Your task to perform on an android device: Open ESPN.com Image 0: 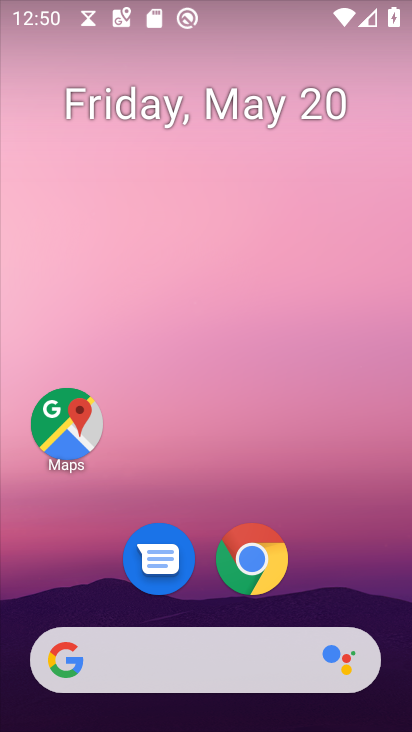
Step 0: drag from (338, 433) to (343, 138)
Your task to perform on an android device: Open ESPN.com Image 1: 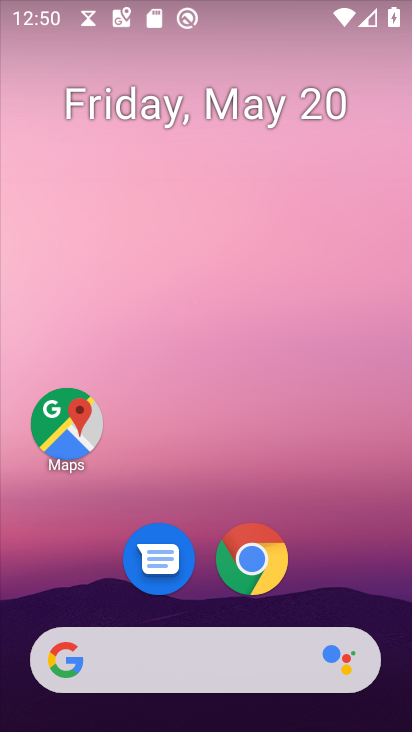
Step 1: drag from (314, 577) to (308, 128)
Your task to perform on an android device: Open ESPN.com Image 2: 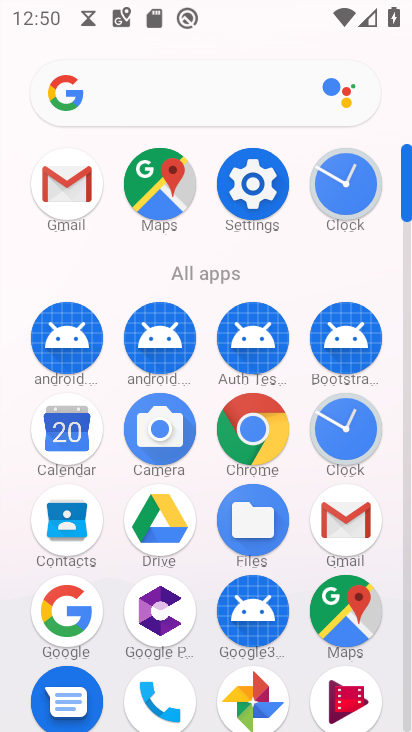
Step 2: click (68, 612)
Your task to perform on an android device: Open ESPN.com Image 3: 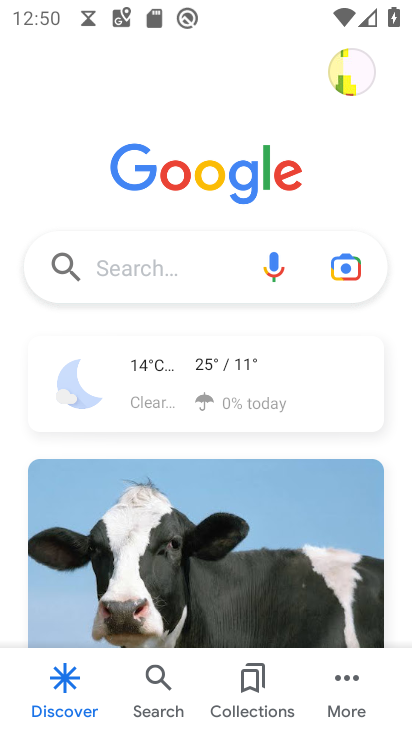
Step 3: click (150, 270)
Your task to perform on an android device: Open ESPN.com Image 4: 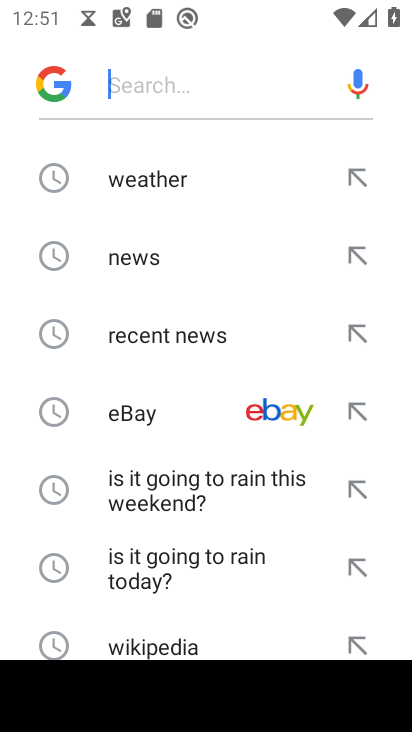
Step 4: type "ESPN.com"
Your task to perform on an android device: Open ESPN.com Image 5: 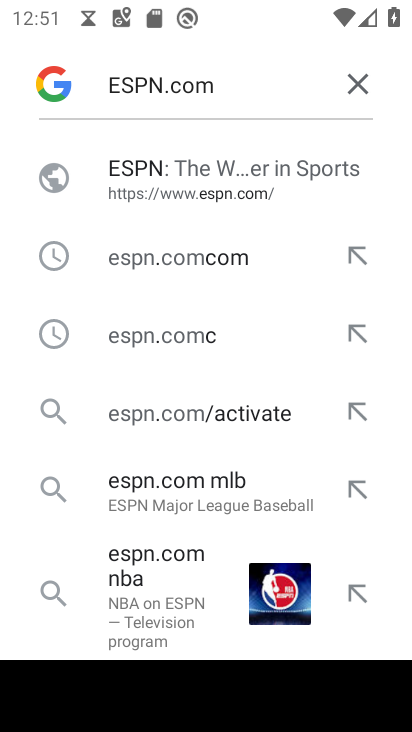
Step 5: click (190, 189)
Your task to perform on an android device: Open ESPN.com Image 6: 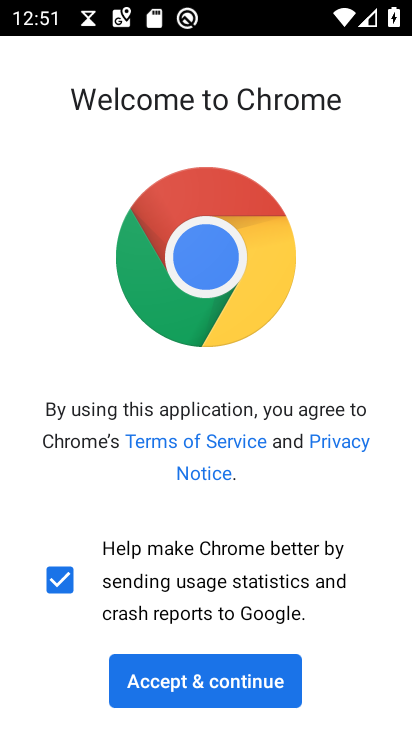
Step 6: click (197, 697)
Your task to perform on an android device: Open ESPN.com Image 7: 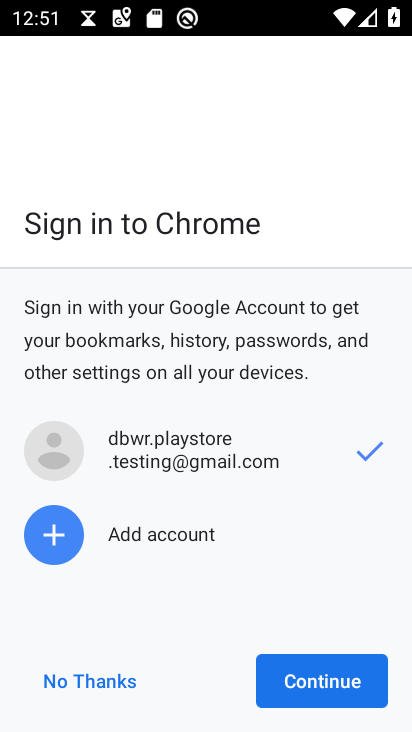
Step 7: click (293, 692)
Your task to perform on an android device: Open ESPN.com Image 8: 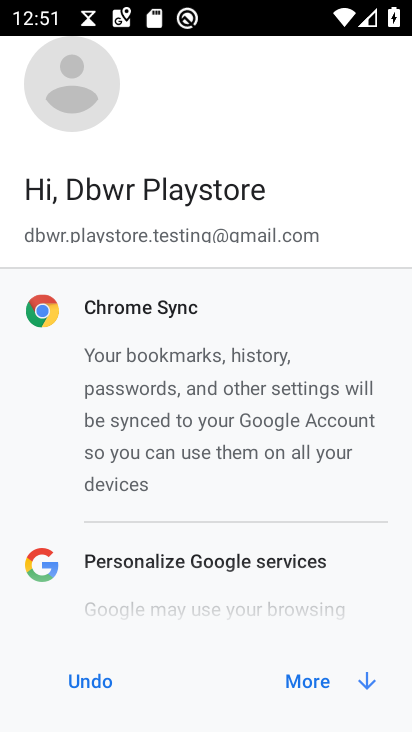
Step 8: click (306, 684)
Your task to perform on an android device: Open ESPN.com Image 9: 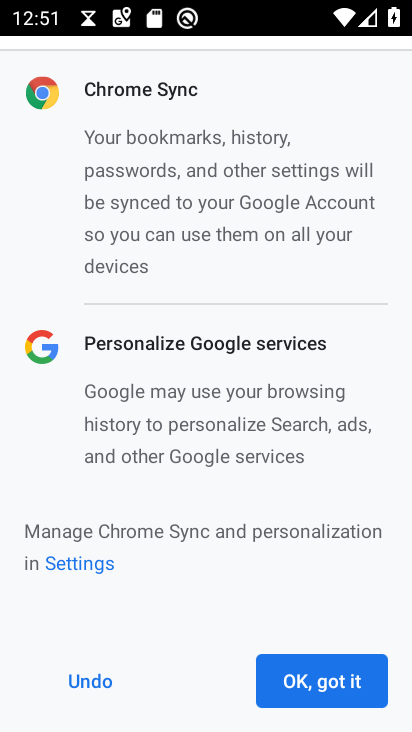
Step 9: click (344, 701)
Your task to perform on an android device: Open ESPN.com Image 10: 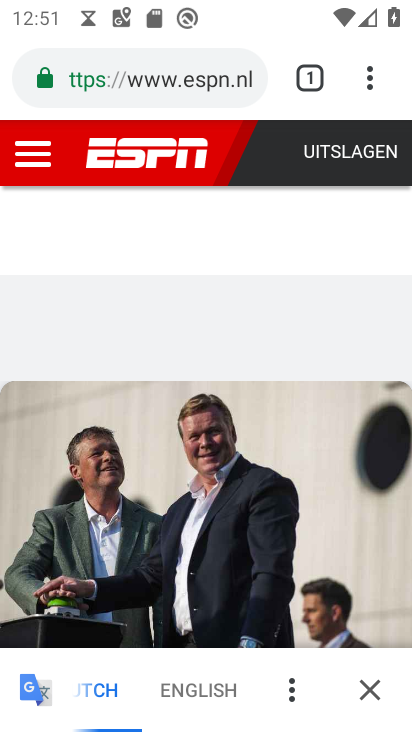
Step 10: task complete